Your task to perform on an android device: View the shopping cart on costco.com. Add "acer nitro" to the cart on costco.com, then select checkout. Image 0: 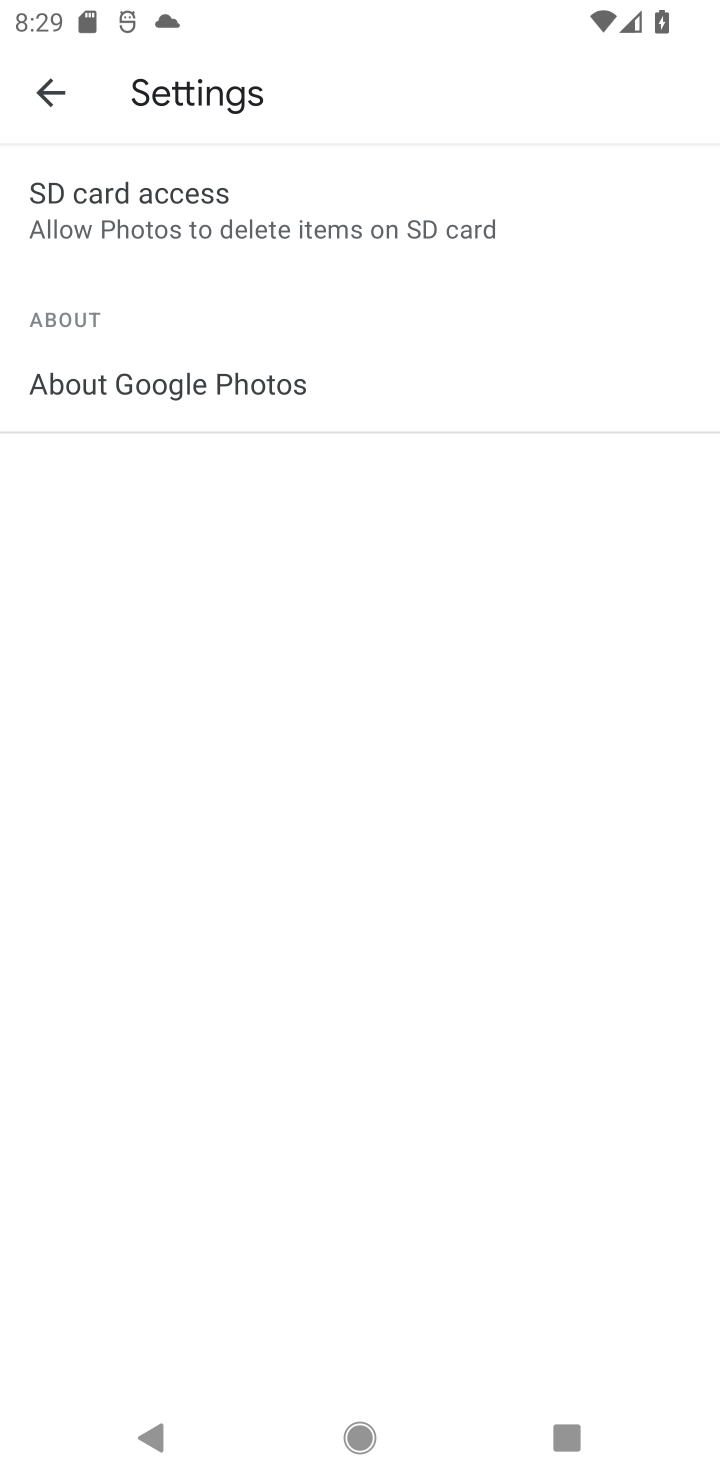
Step 0: task complete